Your task to perform on an android device: change the clock display to digital Image 0: 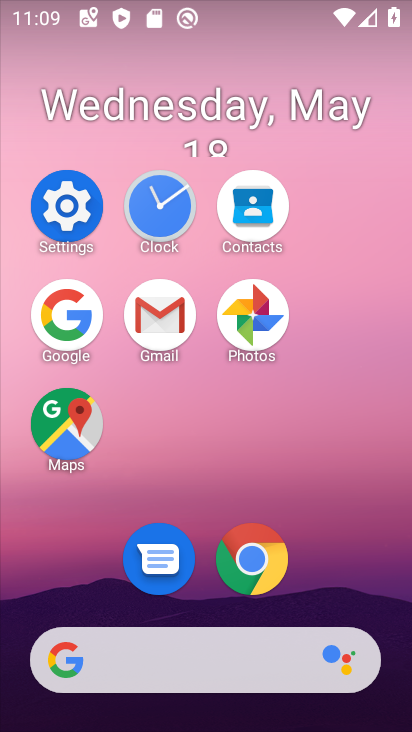
Step 0: click (162, 192)
Your task to perform on an android device: change the clock display to digital Image 1: 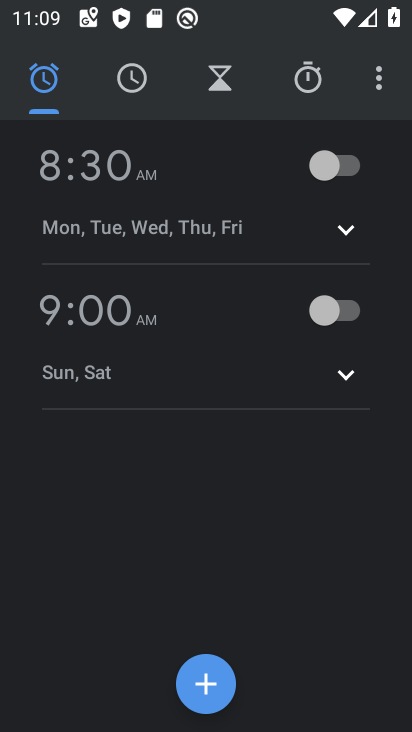
Step 1: click (395, 88)
Your task to perform on an android device: change the clock display to digital Image 2: 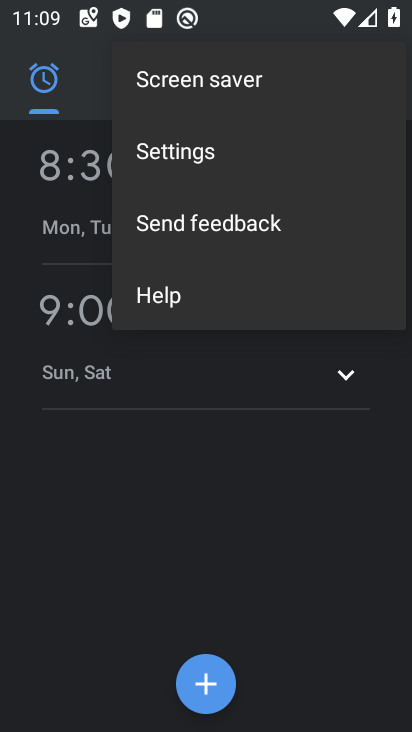
Step 2: click (153, 158)
Your task to perform on an android device: change the clock display to digital Image 3: 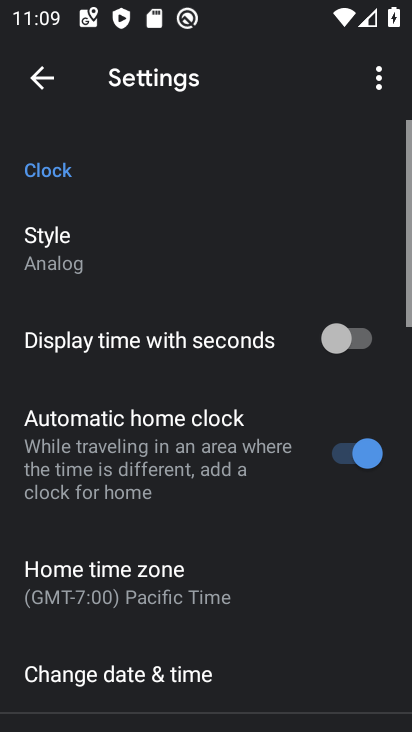
Step 3: click (110, 270)
Your task to perform on an android device: change the clock display to digital Image 4: 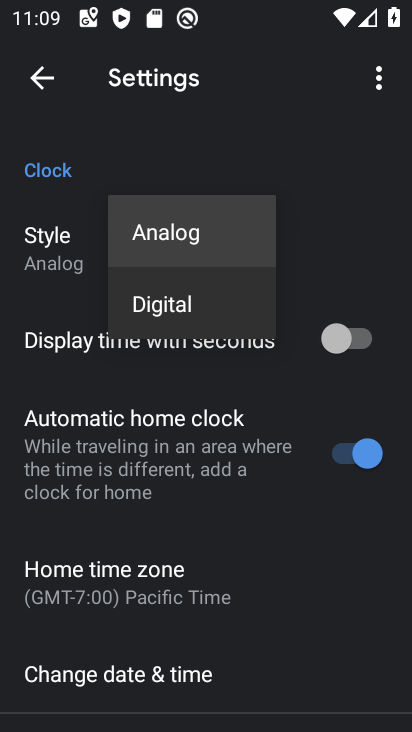
Step 4: click (160, 308)
Your task to perform on an android device: change the clock display to digital Image 5: 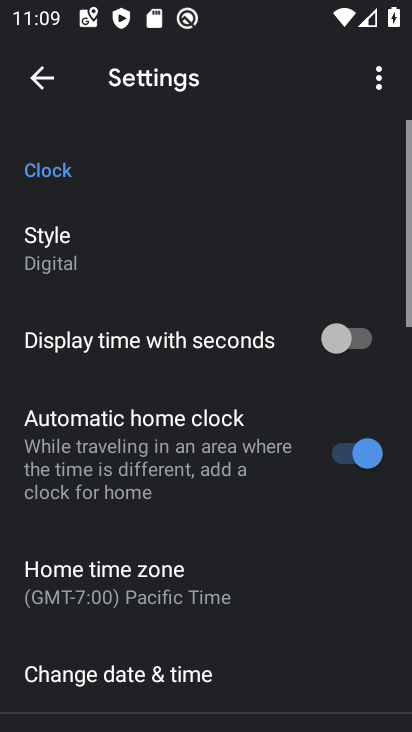
Step 5: task complete